Your task to perform on an android device: Search for macbook on amazon.com, select the first entry, and add it to the cart. Image 0: 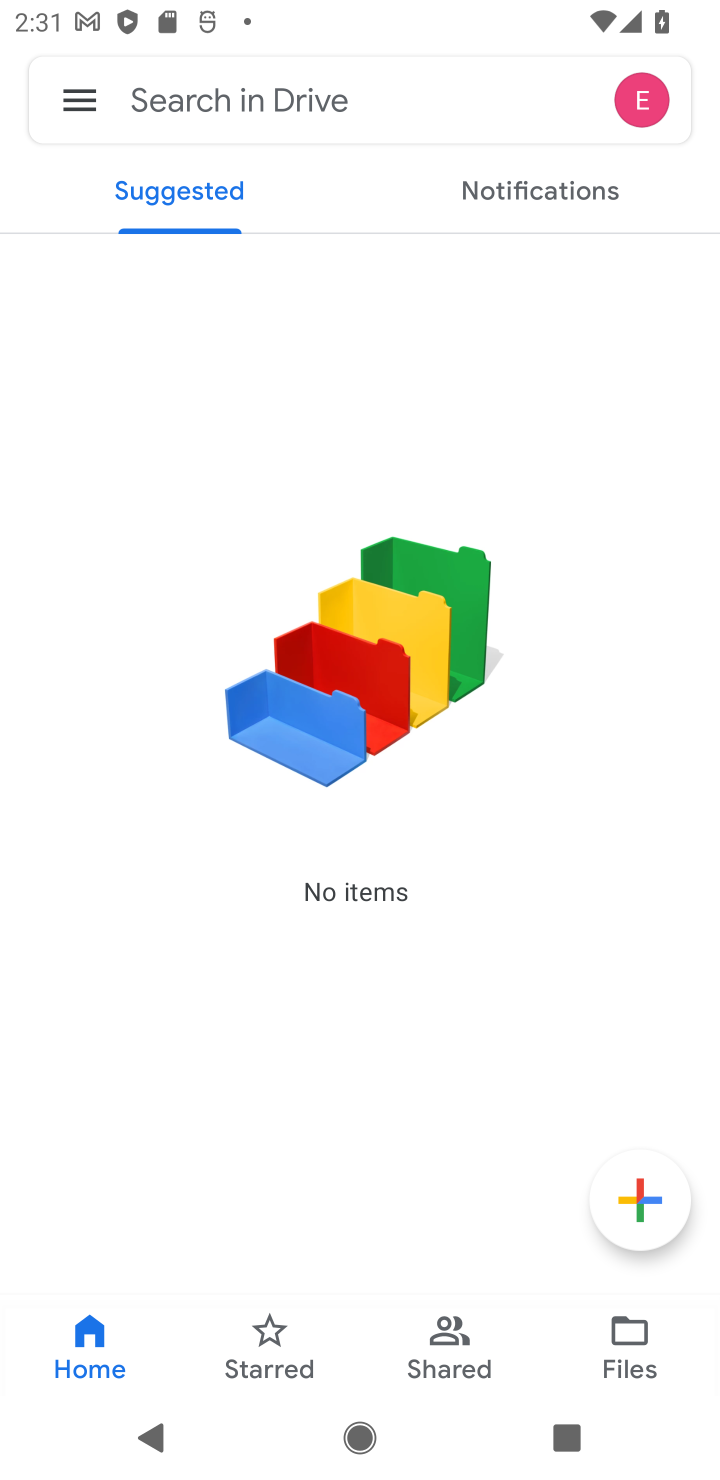
Step 0: press home button
Your task to perform on an android device: Search for macbook on amazon.com, select the first entry, and add it to the cart. Image 1: 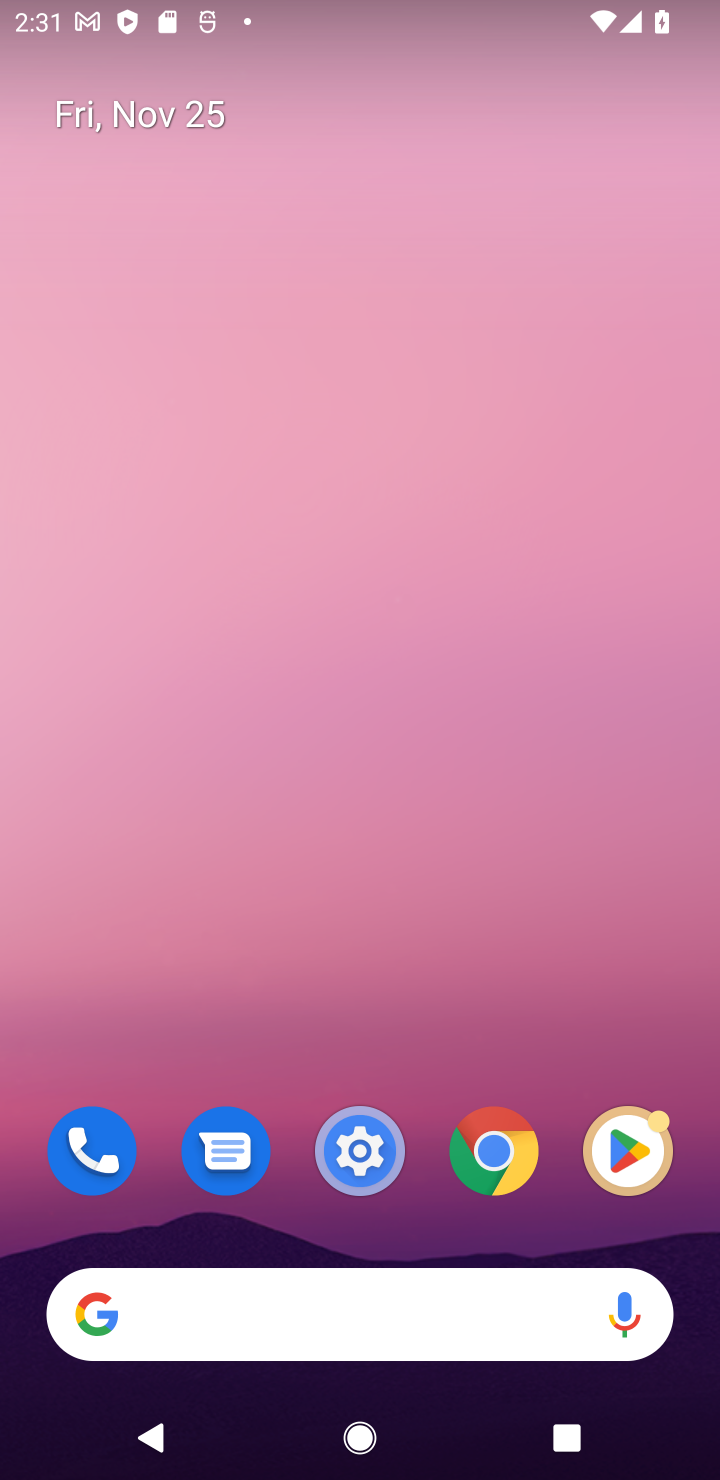
Step 1: click (344, 1341)
Your task to perform on an android device: Search for macbook on amazon.com, select the first entry, and add it to the cart. Image 2: 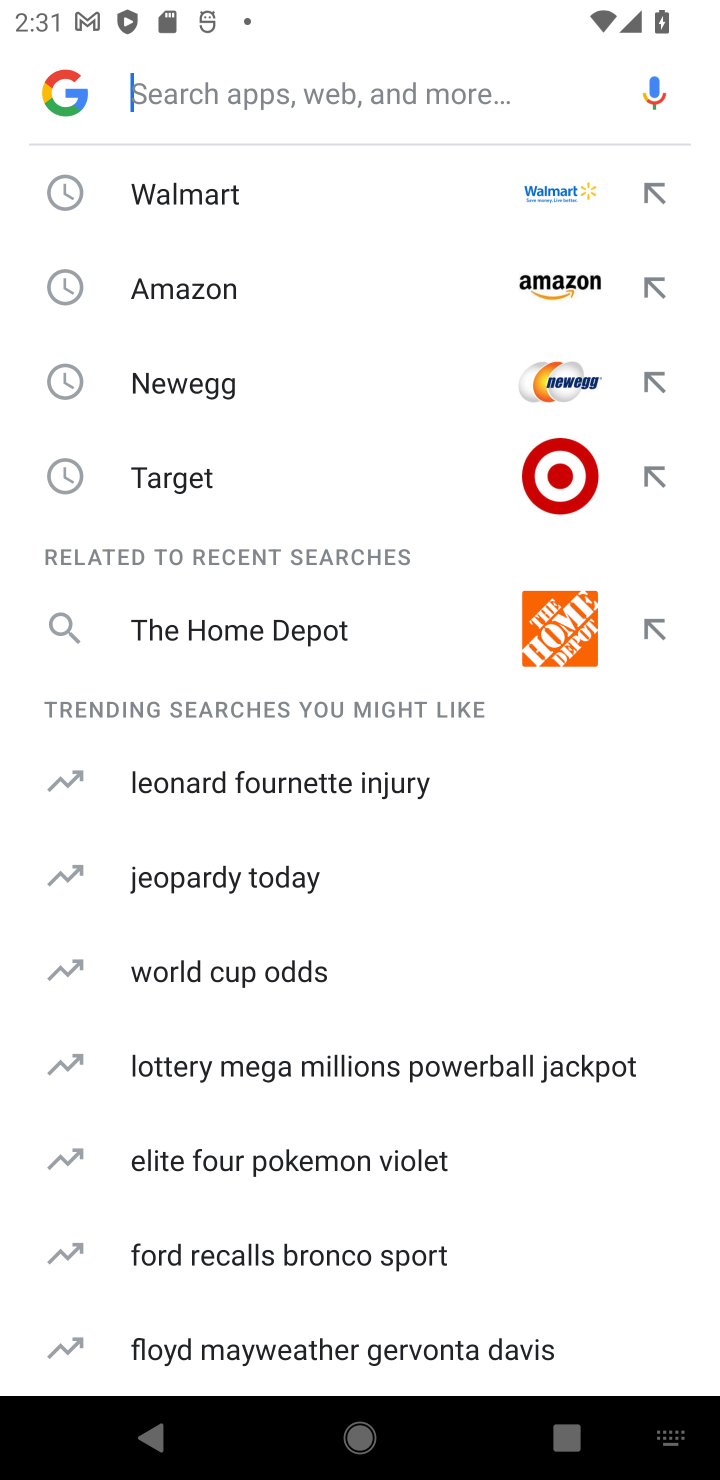
Step 2: click (321, 281)
Your task to perform on an android device: Search for macbook on amazon.com, select the first entry, and add it to the cart. Image 3: 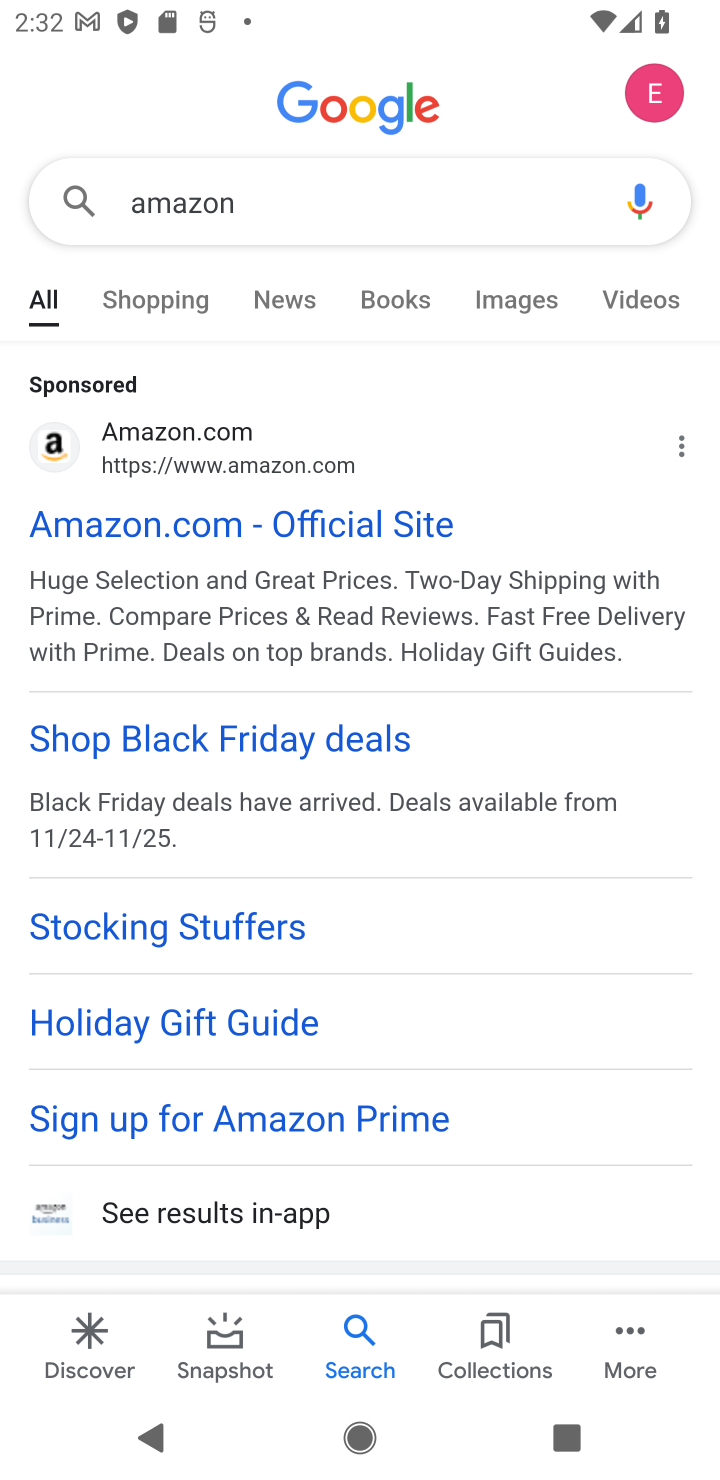
Step 3: click (206, 468)
Your task to perform on an android device: Search for macbook on amazon.com, select the first entry, and add it to the cart. Image 4: 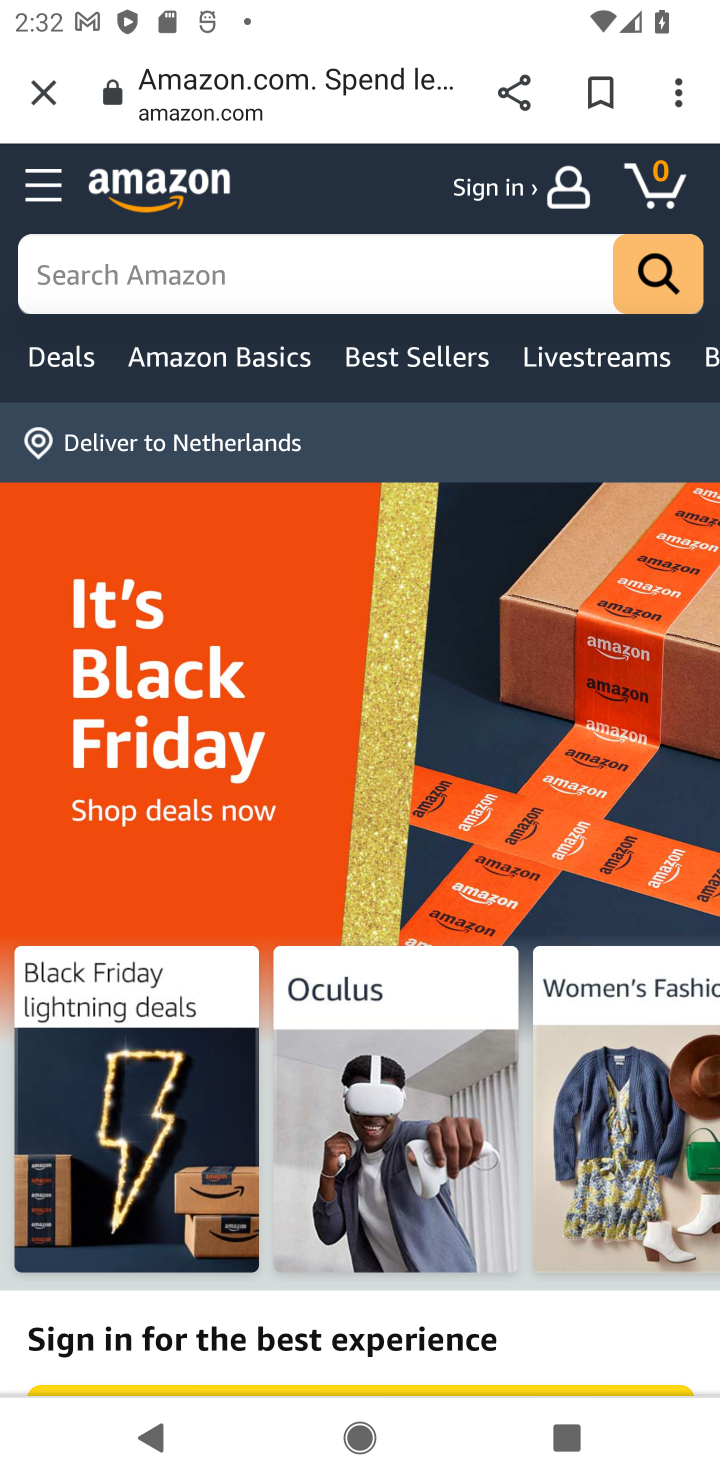
Step 4: task complete